Your task to perform on an android device: Go to sound settings Image 0: 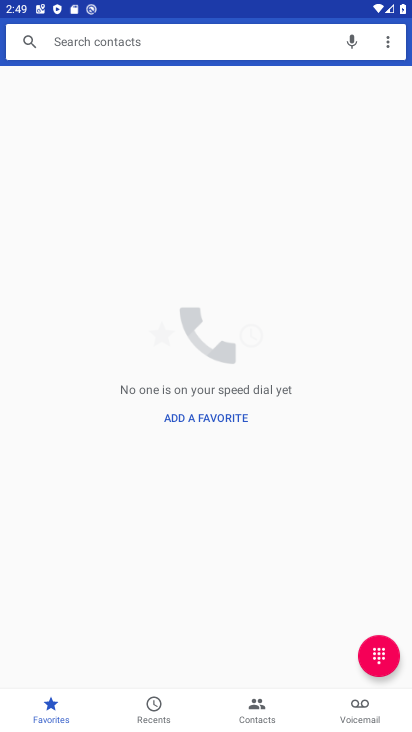
Step 0: press home button
Your task to perform on an android device: Go to sound settings Image 1: 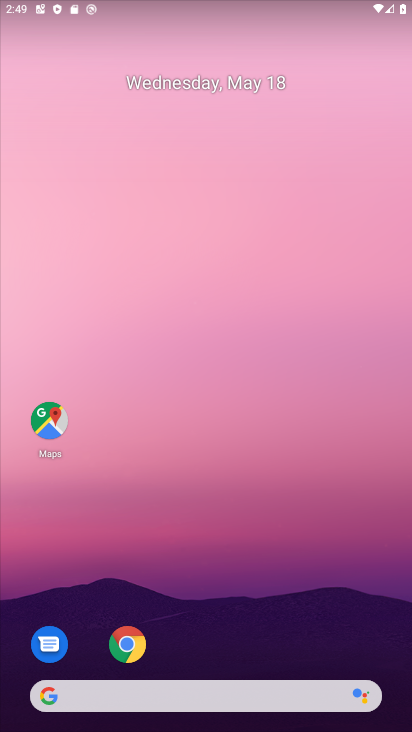
Step 1: drag from (158, 729) to (213, 378)
Your task to perform on an android device: Go to sound settings Image 2: 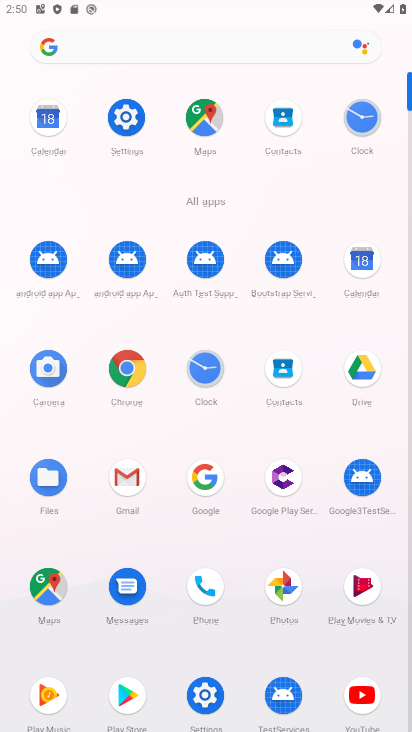
Step 2: click (117, 132)
Your task to perform on an android device: Go to sound settings Image 3: 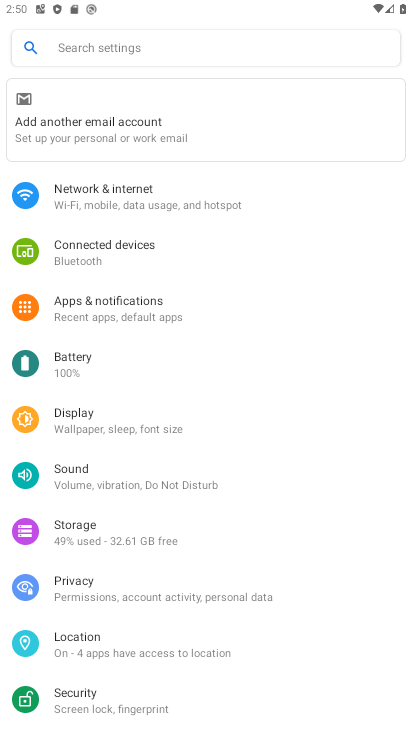
Step 3: click (135, 482)
Your task to perform on an android device: Go to sound settings Image 4: 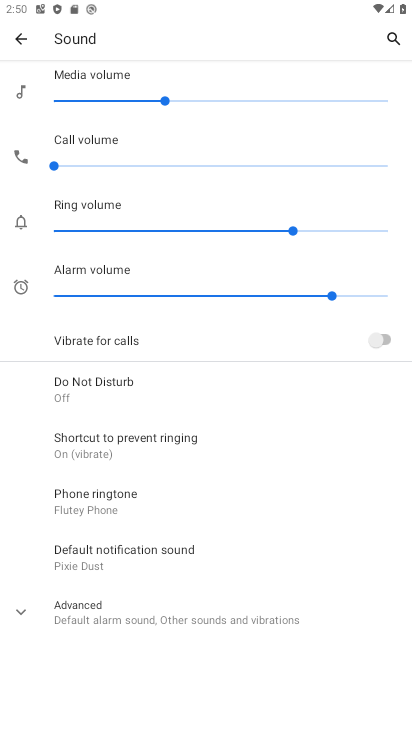
Step 4: task complete